Your task to perform on an android device: Open sound settings Image 0: 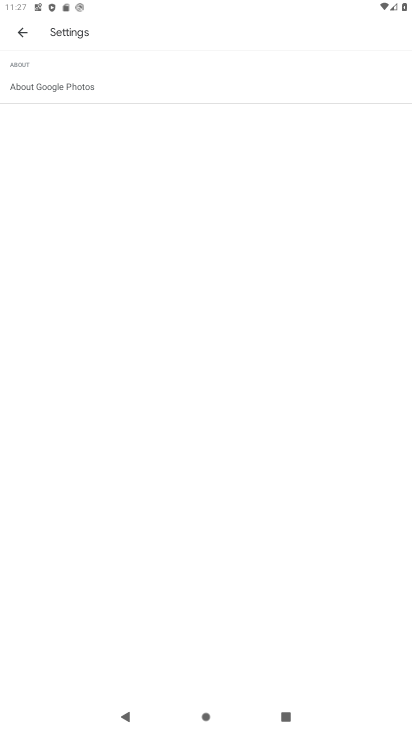
Step 0: press home button
Your task to perform on an android device: Open sound settings Image 1: 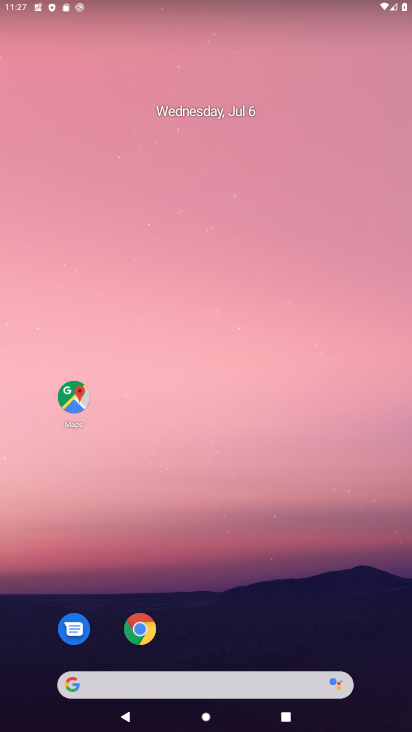
Step 1: drag from (231, 623) to (212, 185)
Your task to perform on an android device: Open sound settings Image 2: 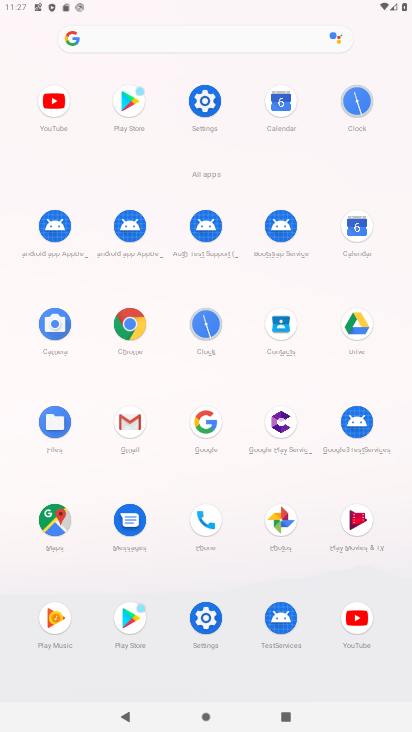
Step 2: click (205, 102)
Your task to perform on an android device: Open sound settings Image 3: 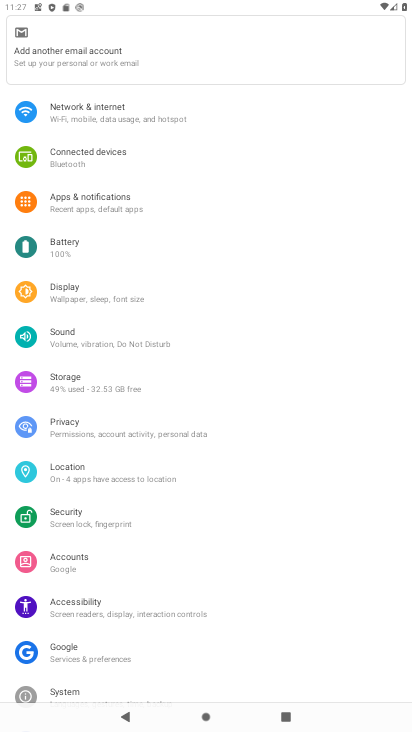
Step 3: click (66, 336)
Your task to perform on an android device: Open sound settings Image 4: 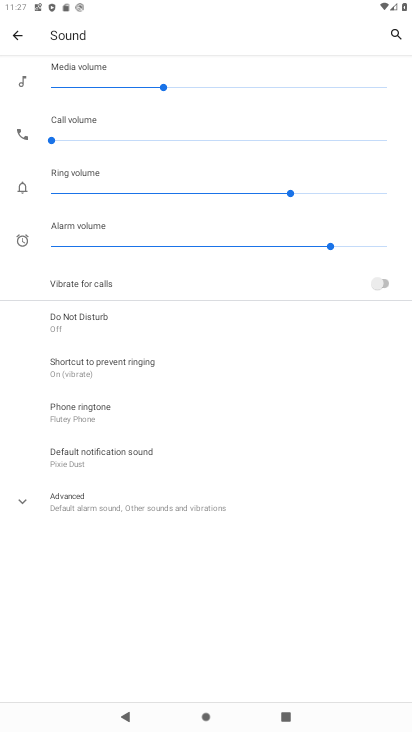
Step 4: task complete